Your task to perform on an android device: change the clock display to show seconds Image 0: 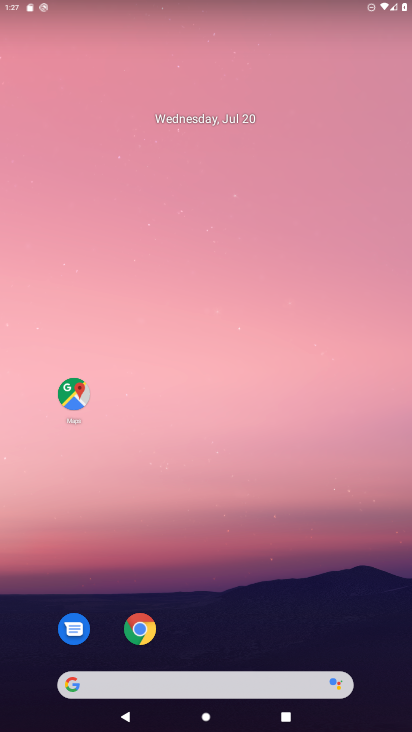
Step 0: drag from (182, 658) to (206, 169)
Your task to perform on an android device: change the clock display to show seconds Image 1: 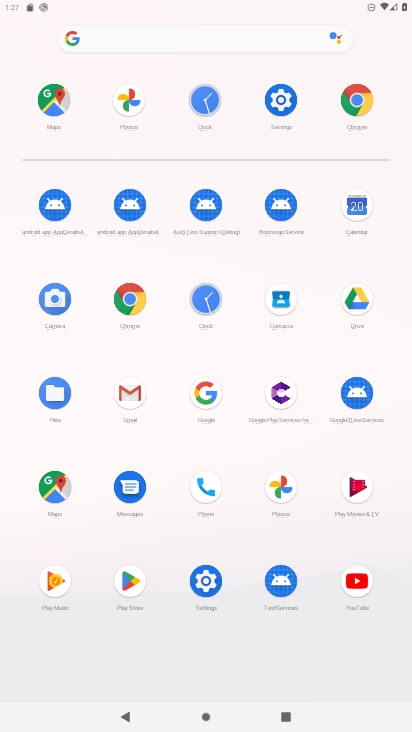
Step 1: click (202, 299)
Your task to perform on an android device: change the clock display to show seconds Image 2: 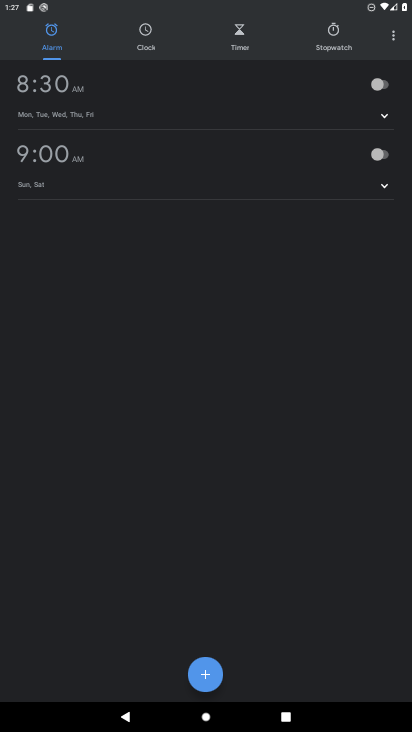
Step 2: click (400, 44)
Your task to perform on an android device: change the clock display to show seconds Image 3: 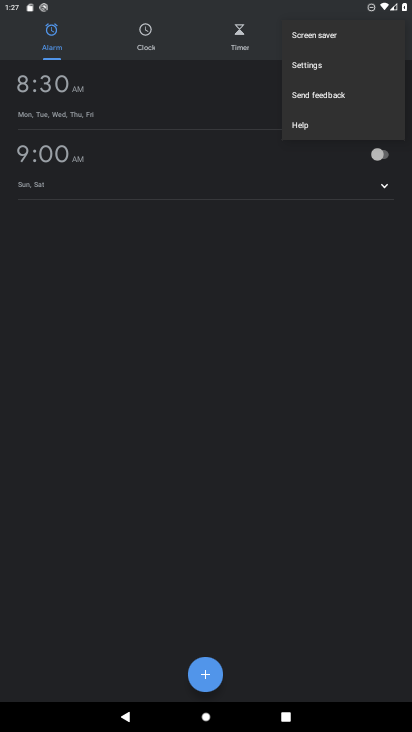
Step 3: click (331, 73)
Your task to perform on an android device: change the clock display to show seconds Image 4: 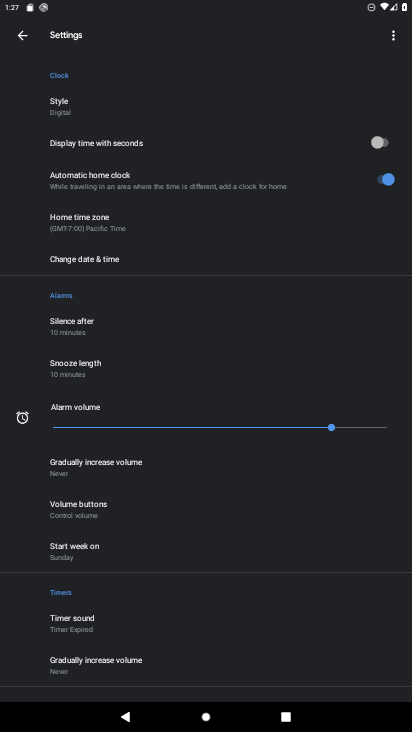
Step 4: click (389, 146)
Your task to perform on an android device: change the clock display to show seconds Image 5: 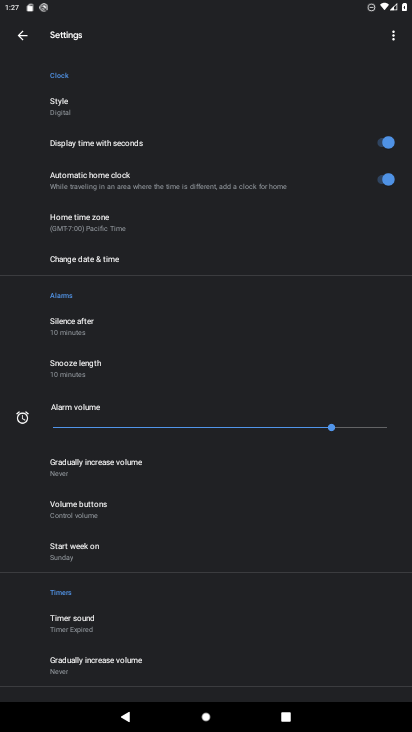
Step 5: task complete